Your task to perform on an android device: Go to settings Image 0: 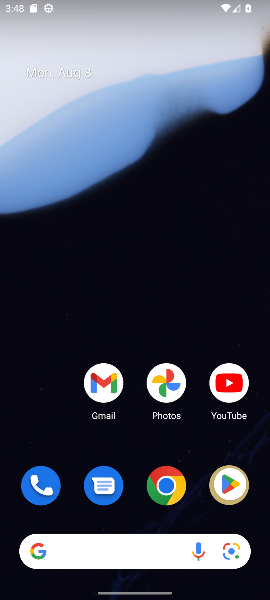
Step 0: drag from (129, 260) to (104, 87)
Your task to perform on an android device: Go to settings Image 1: 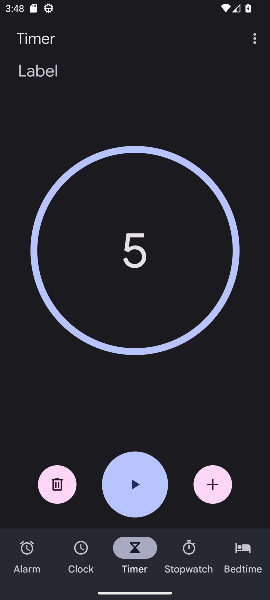
Step 1: press back button
Your task to perform on an android device: Go to settings Image 2: 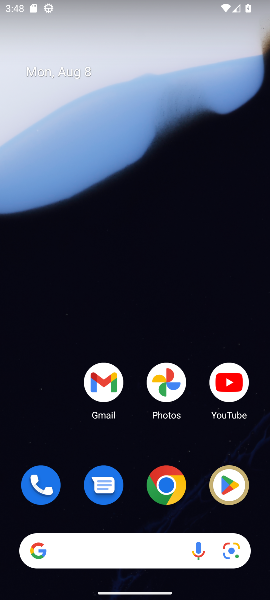
Step 2: press back button
Your task to perform on an android device: Go to settings Image 3: 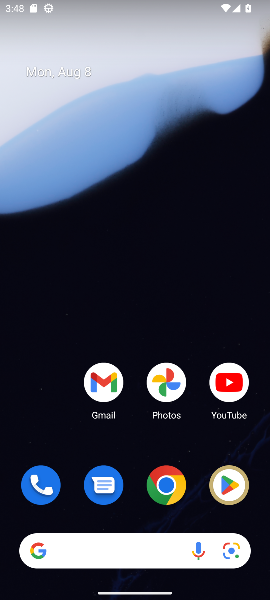
Step 3: drag from (166, 534) to (106, 24)
Your task to perform on an android device: Go to settings Image 4: 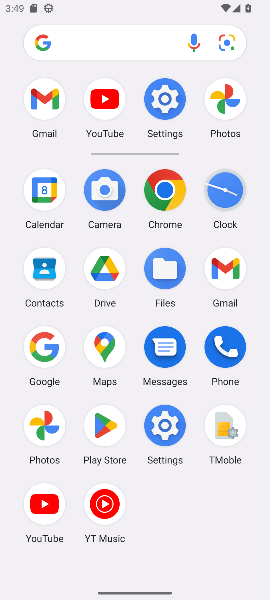
Step 4: click (164, 429)
Your task to perform on an android device: Go to settings Image 5: 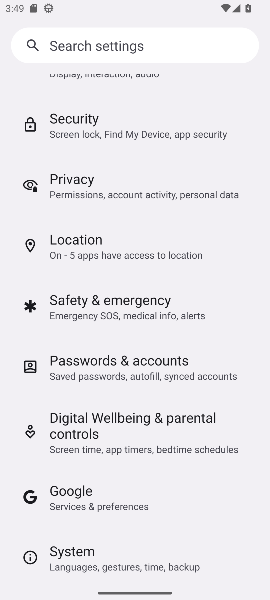
Step 5: task complete